Your task to perform on an android device: open chrome and create a bookmark for the current page Image 0: 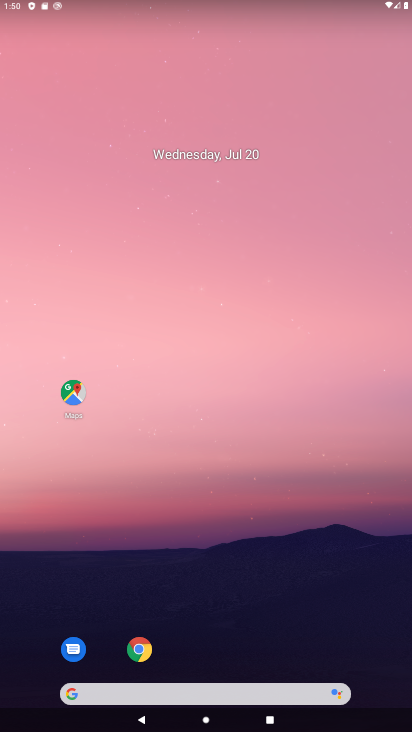
Step 0: click (144, 655)
Your task to perform on an android device: open chrome and create a bookmark for the current page Image 1: 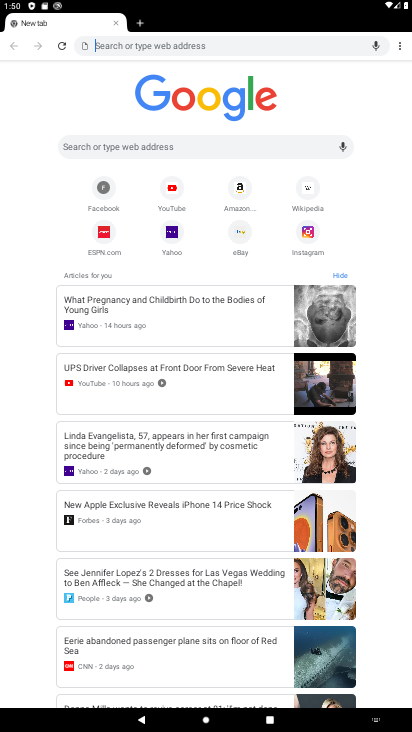
Step 1: click (400, 47)
Your task to perform on an android device: open chrome and create a bookmark for the current page Image 2: 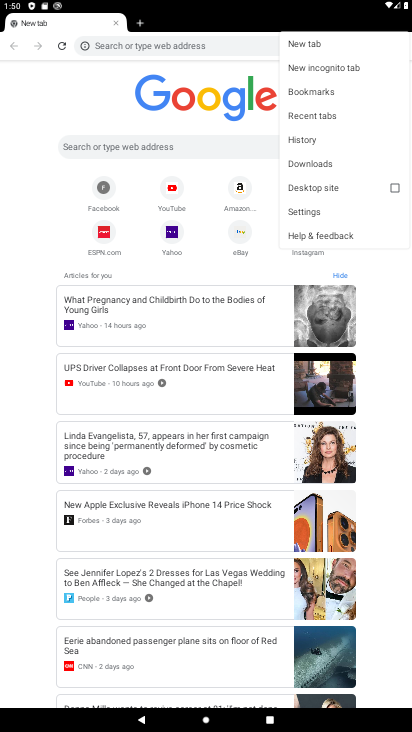
Step 2: click (324, 88)
Your task to perform on an android device: open chrome and create a bookmark for the current page Image 3: 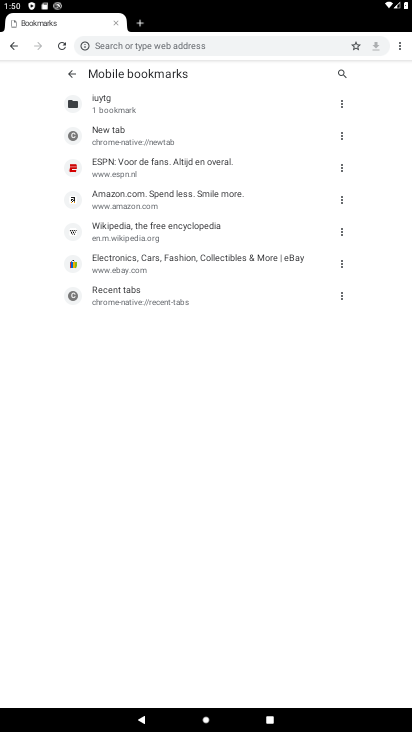
Step 3: click (356, 48)
Your task to perform on an android device: open chrome and create a bookmark for the current page Image 4: 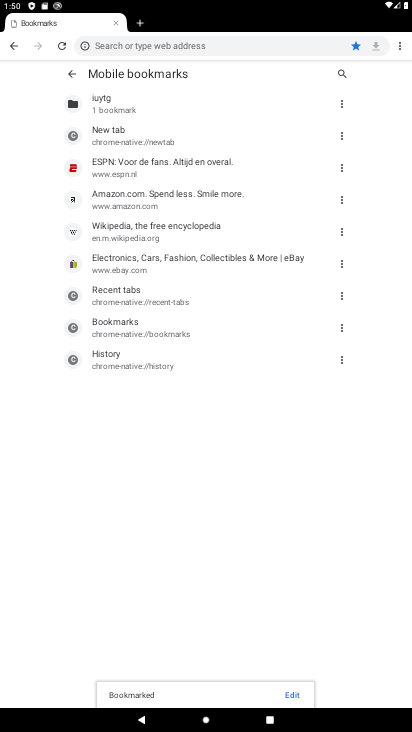
Step 4: task complete